Your task to perform on an android device: Clear the cart on bestbuy.com. Add "duracell triple a" to the cart on bestbuy.com, then select checkout. Image 0: 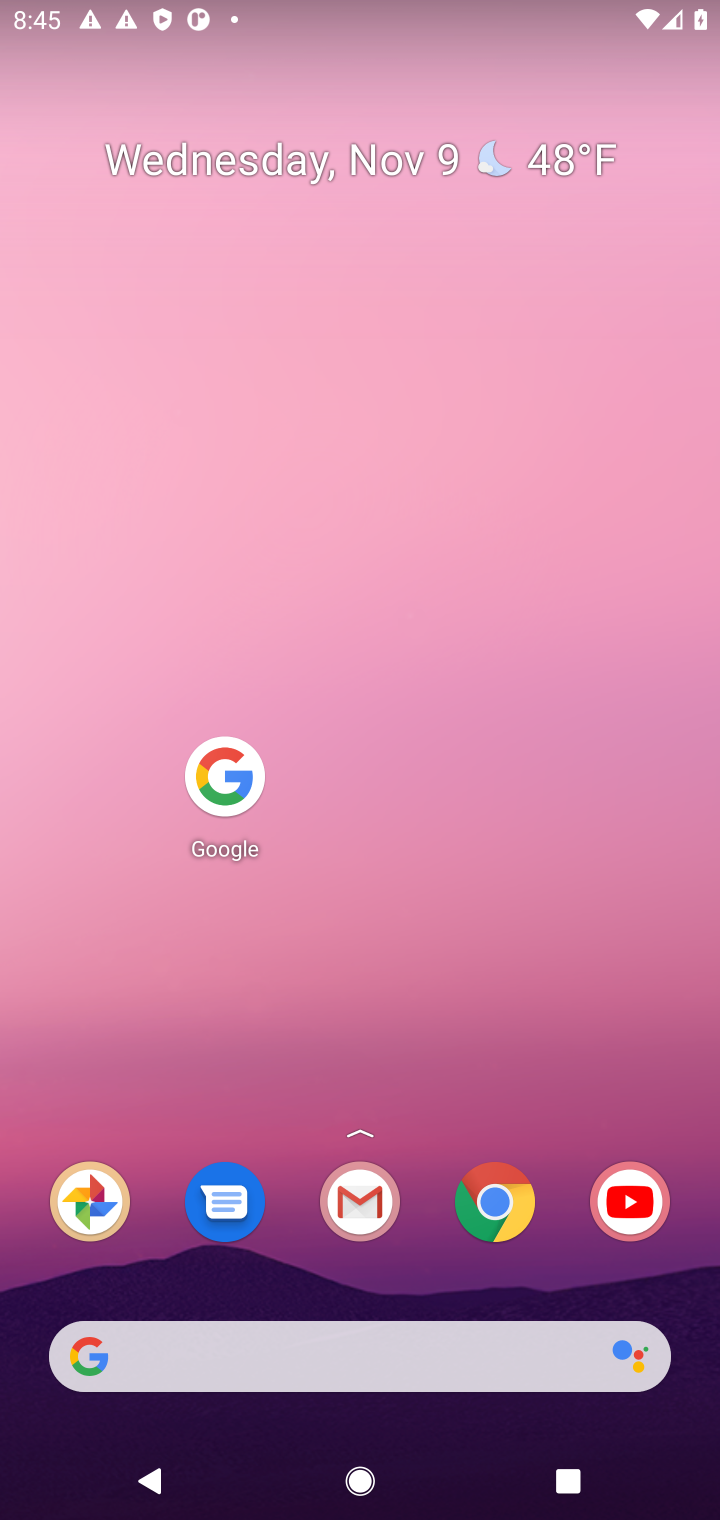
Step 0: click (226, 779)
Your task to perform on an android device: Clear the cart on bestbuy.com. Add "duracell triple a" to the cart on bestbuy.com, then select checkout. Image 1: 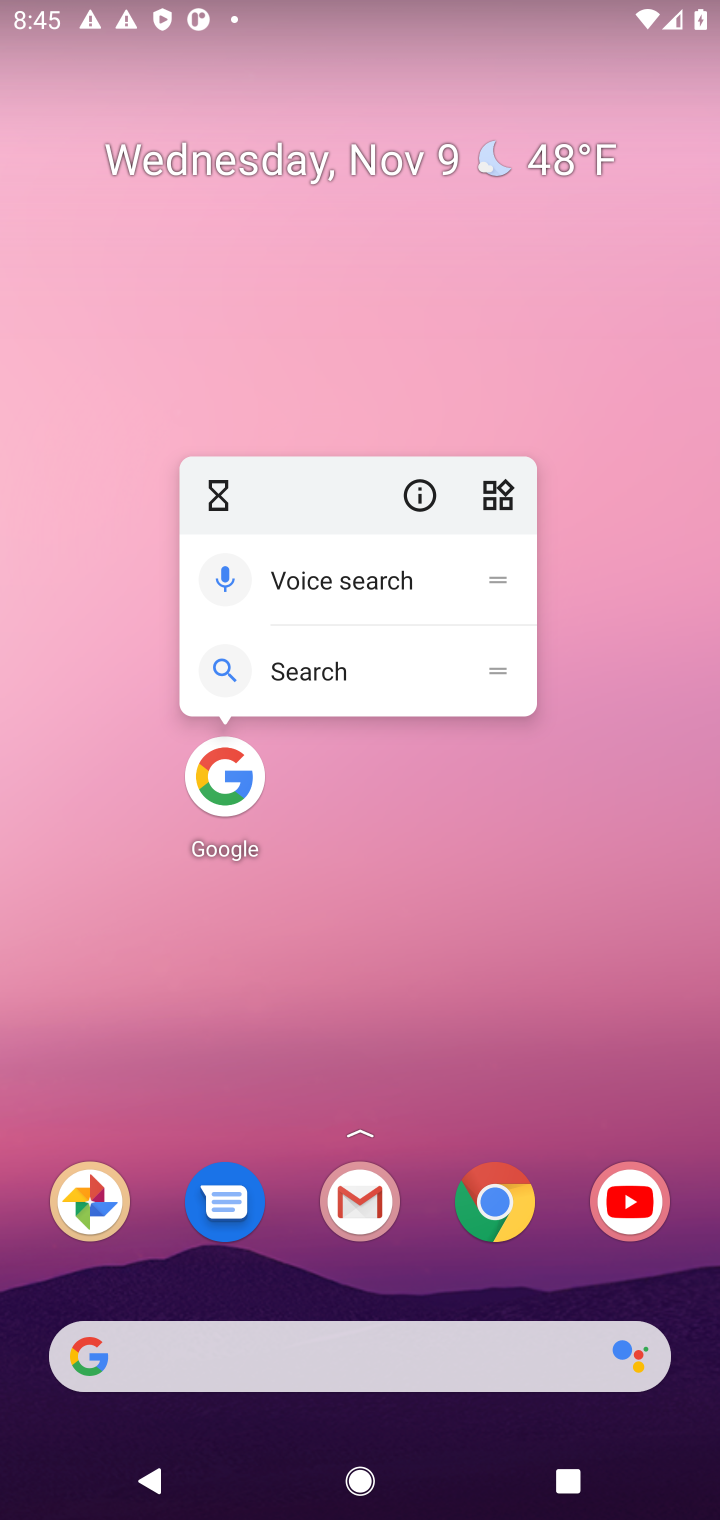
Step 1: click (226, 781)
Your task to perform on an android device: Clear the cart on bestbuy.com. Add "duracell triple a" to the cart on bestbuy.com, then select checkout. Image 2: 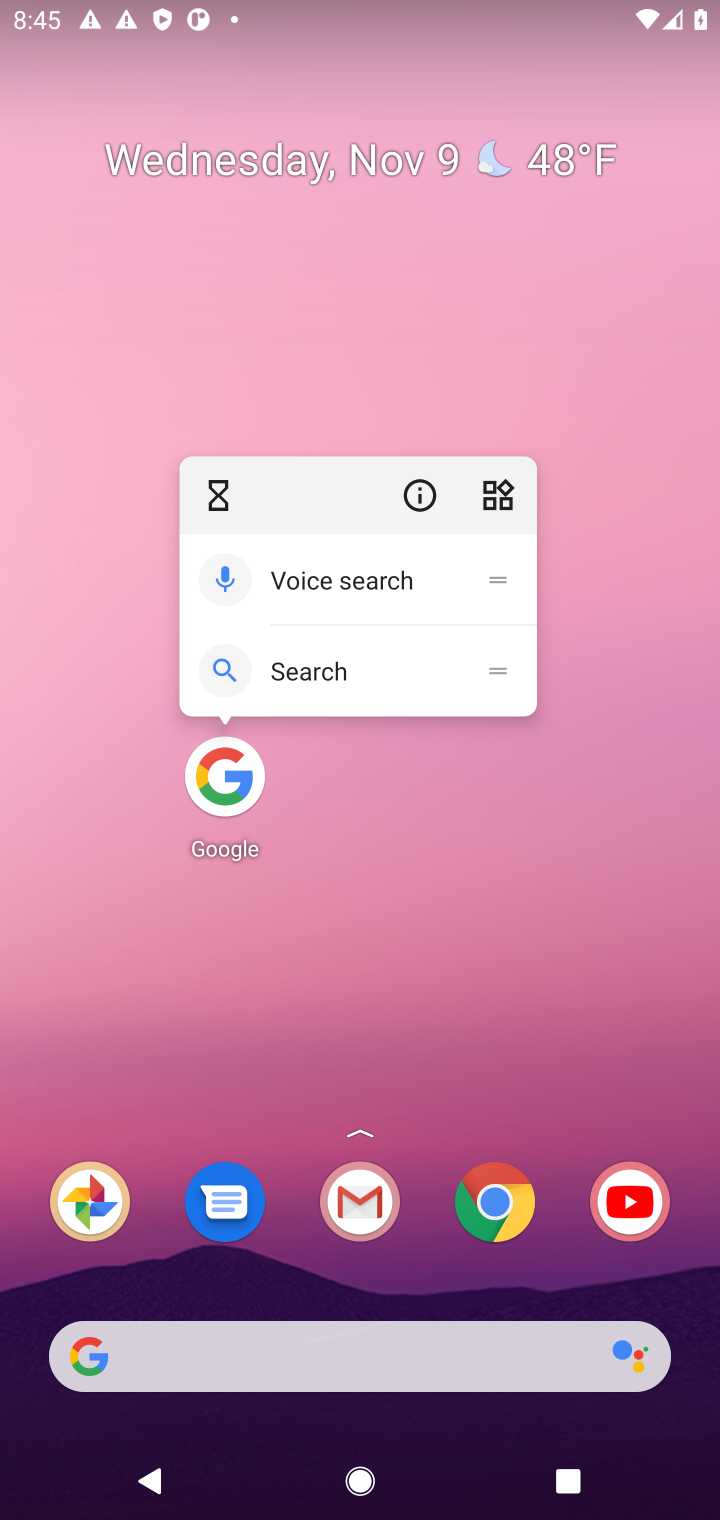
Step 2: click (226, 781)
Your task to perform on an android device: Clear the cart on bestbuy.com. Add "duracell triple a" to the cart on bestbuy.com, then select checkout. Image 3: 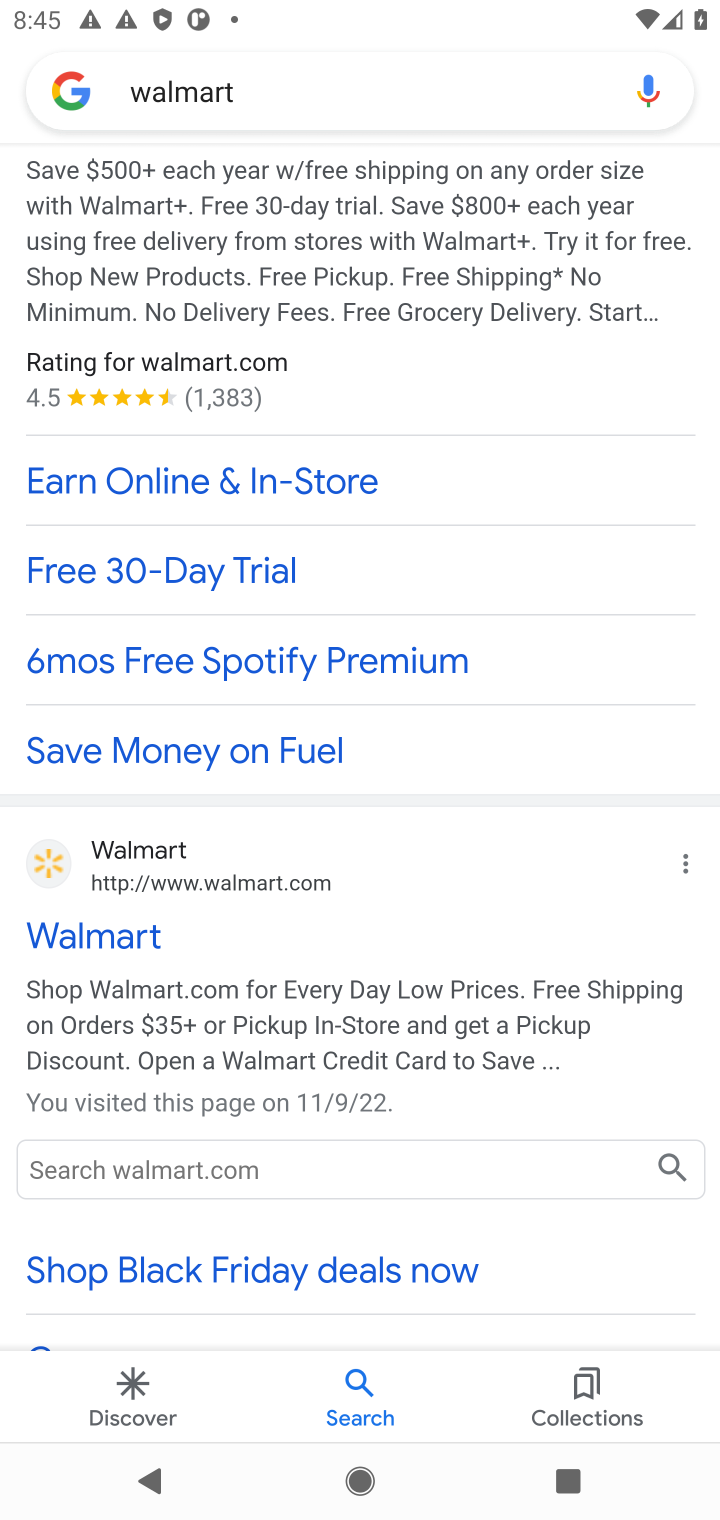
Step 3: click (296, 89)
Your task to perform on an android device: Clear the cart on bestbuy.com. Add "duracell triple a" to the cart on bestbuy.com, then select checkout. Image 4: 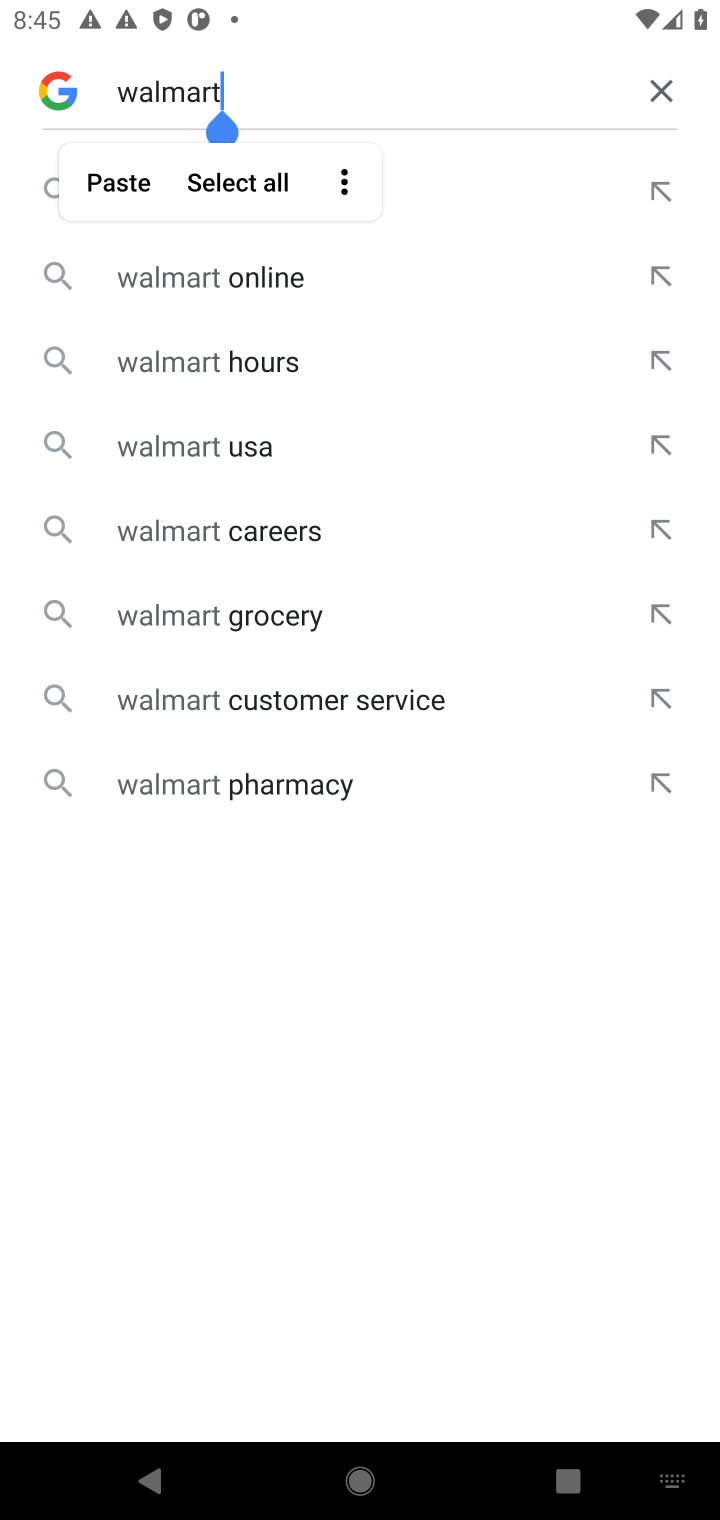
Step 4: click (659, 82)
Your task to perform on an android device: Clear the cart on bestbuy.com. Add "duracell triple a" to the cart on bestbuy.com, then select checkout. Image 5: 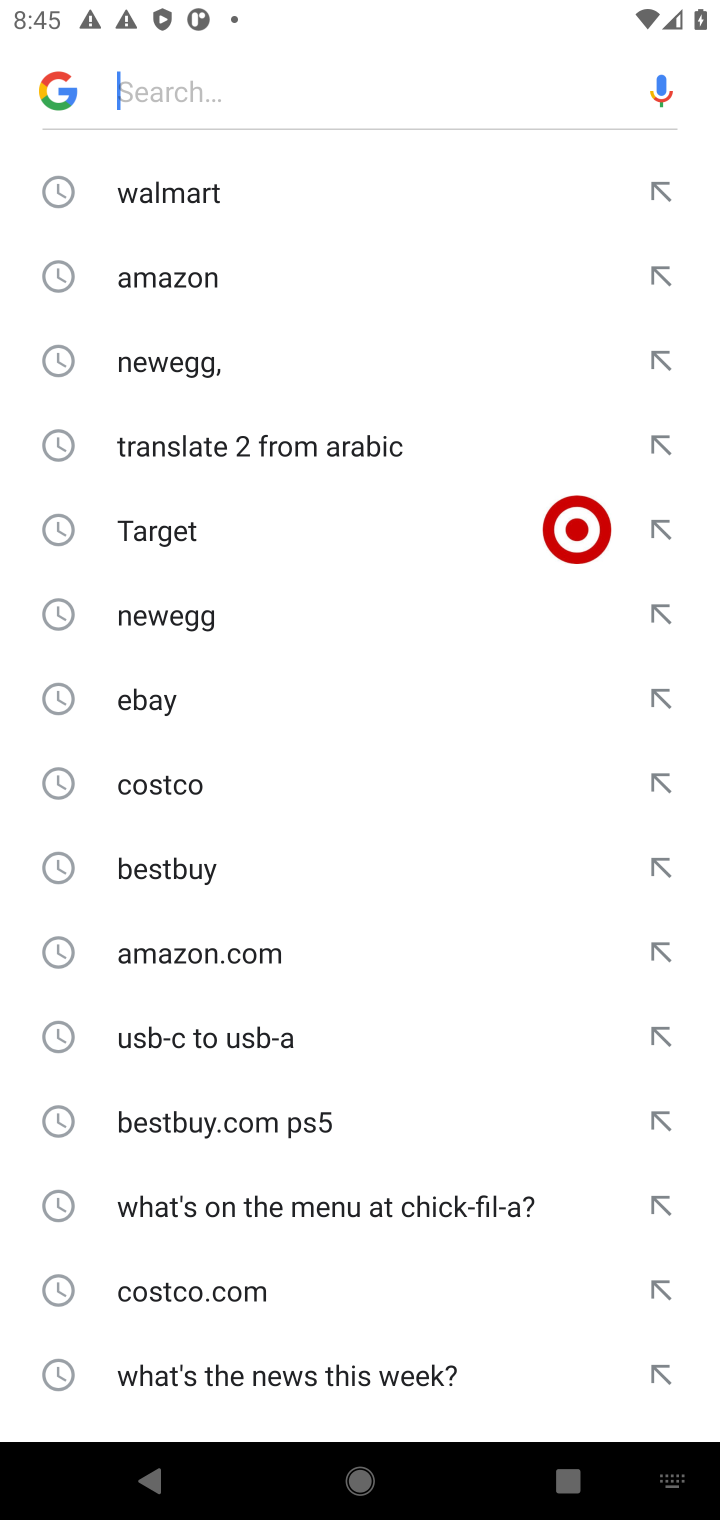
Step 5: click (158, 861)
Your task to perform on an android device: Clear the cart on bestbuy.com. Add "duracell triple a" to the cart on bestbuy.com, then select checkout. Image 6: 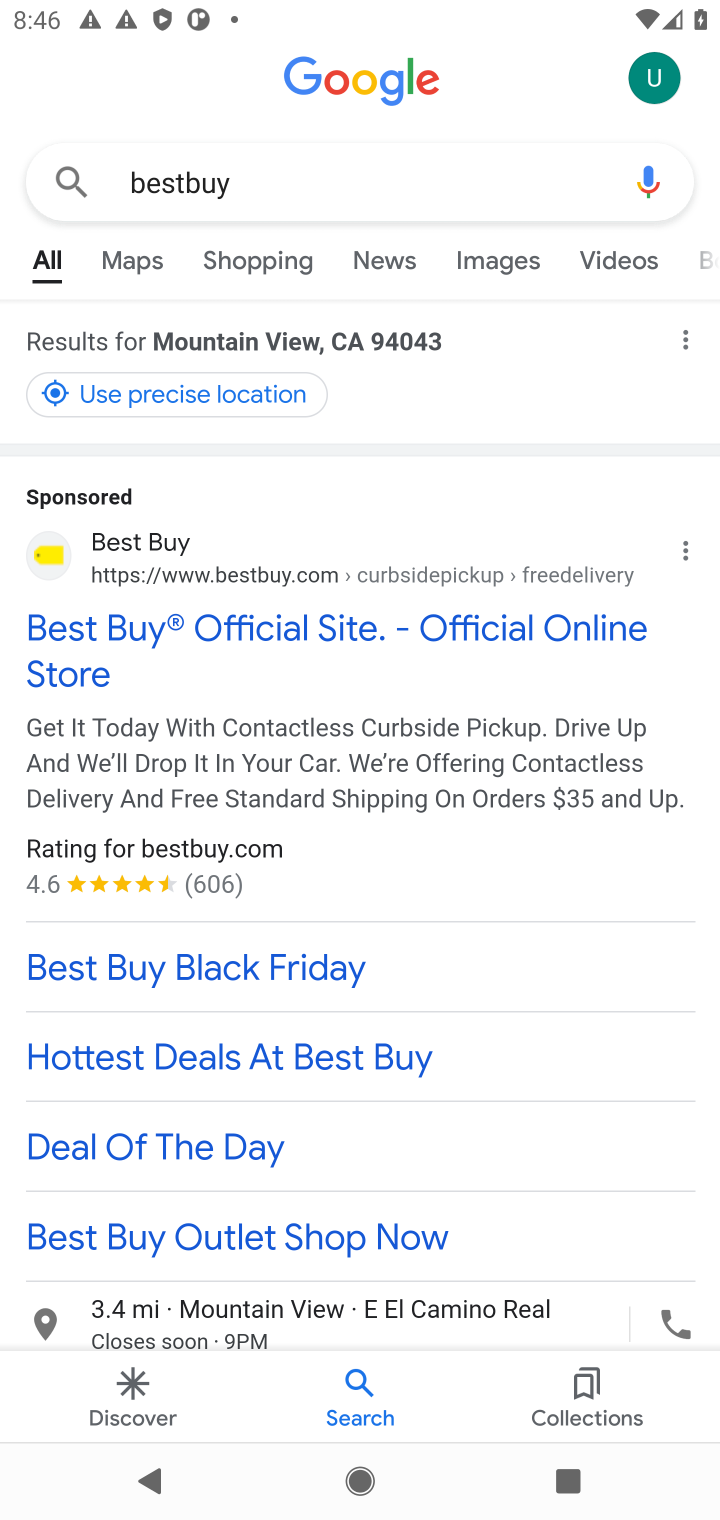
Step 6: click (257, 627)
Your task to perform on an android device: Clear the cart on bestbuy.com. Add "duracell triple a" to the cart on bestbuy.com, then select checkout. Image 7: 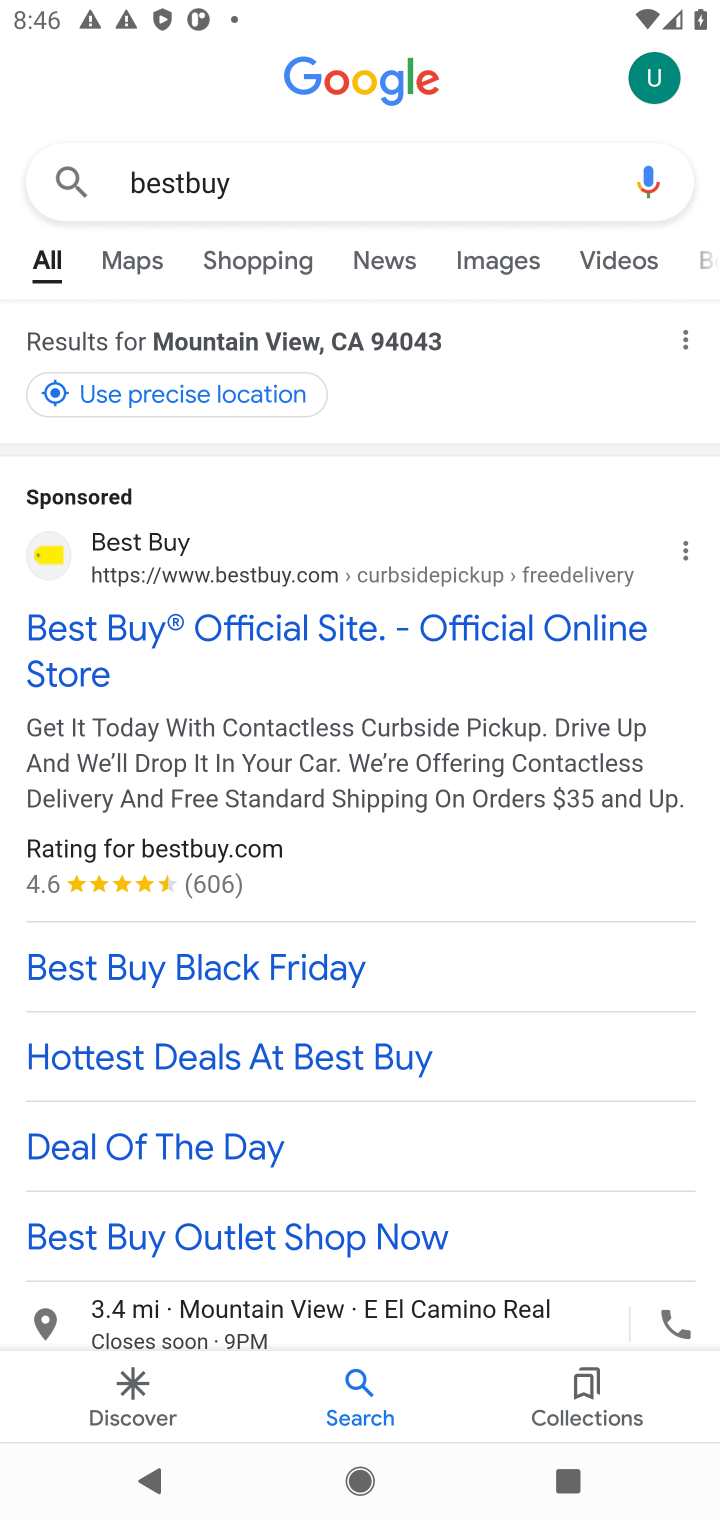
Step 7: click (270, 622)
Your task to perform on an android device: Clear the cart on bestbuy.com. Add "duracell triple a" to the cart on bestbuy.com, then select checkout. Image 8: 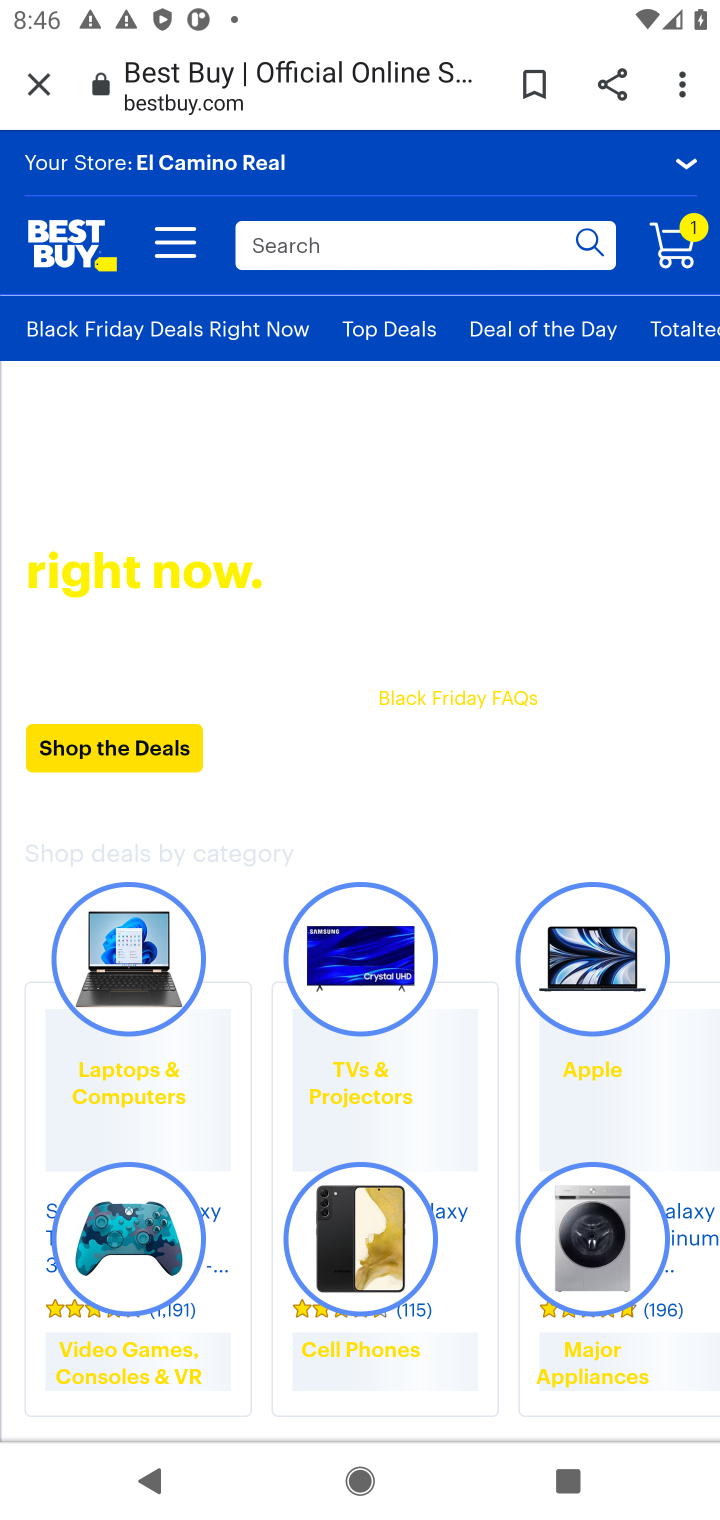
Step 8: click (386, 248)
Your task to perform on an android device: Clear the cart on bestbuy.com. Add "duracell triple a" to the cart on bestbuy.com, then select checkout. Image 9: 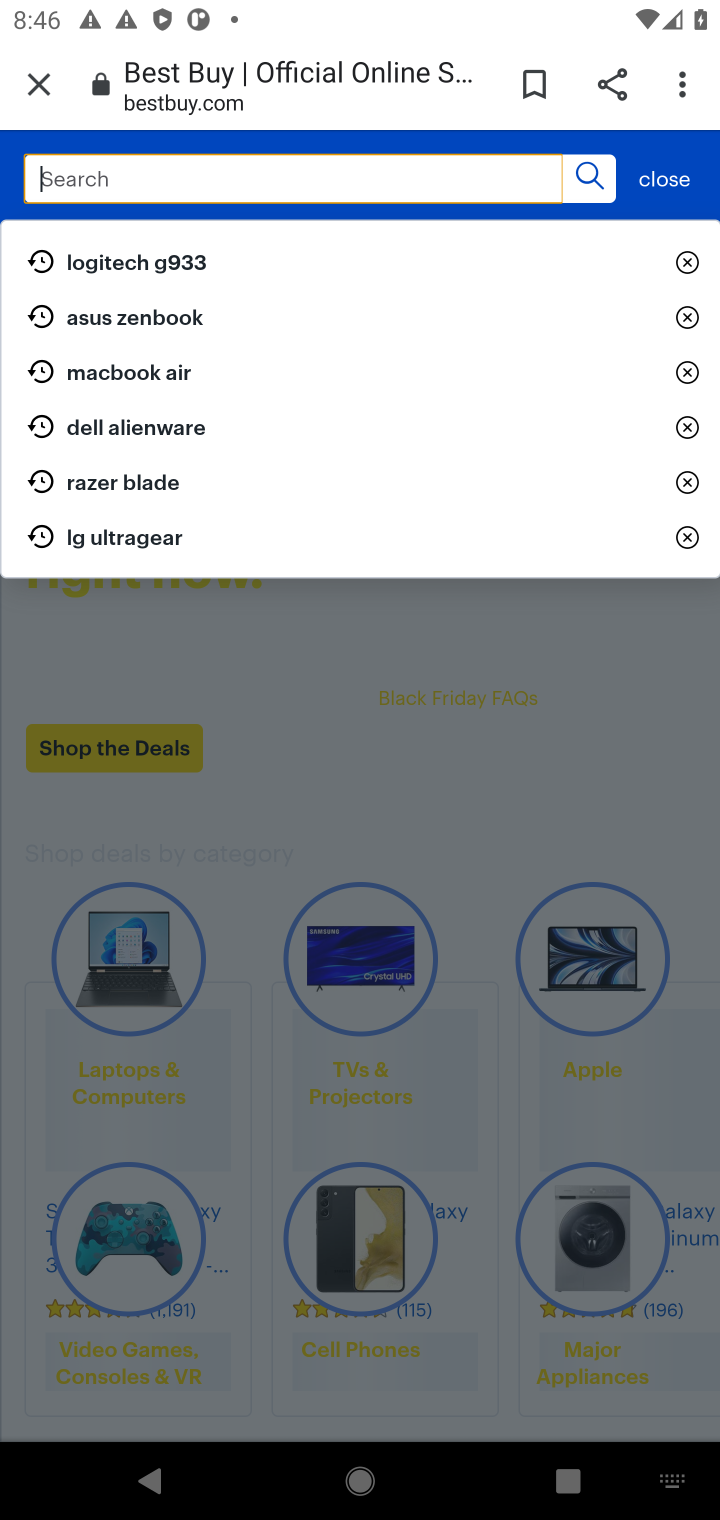
Step 9: type "duracell triple a"
Your task to perform on an android device: Clear the cart on bestbuy.com. Add "duracell triple a" to the cart on bestbuy.com, then select checkout. Image 10: 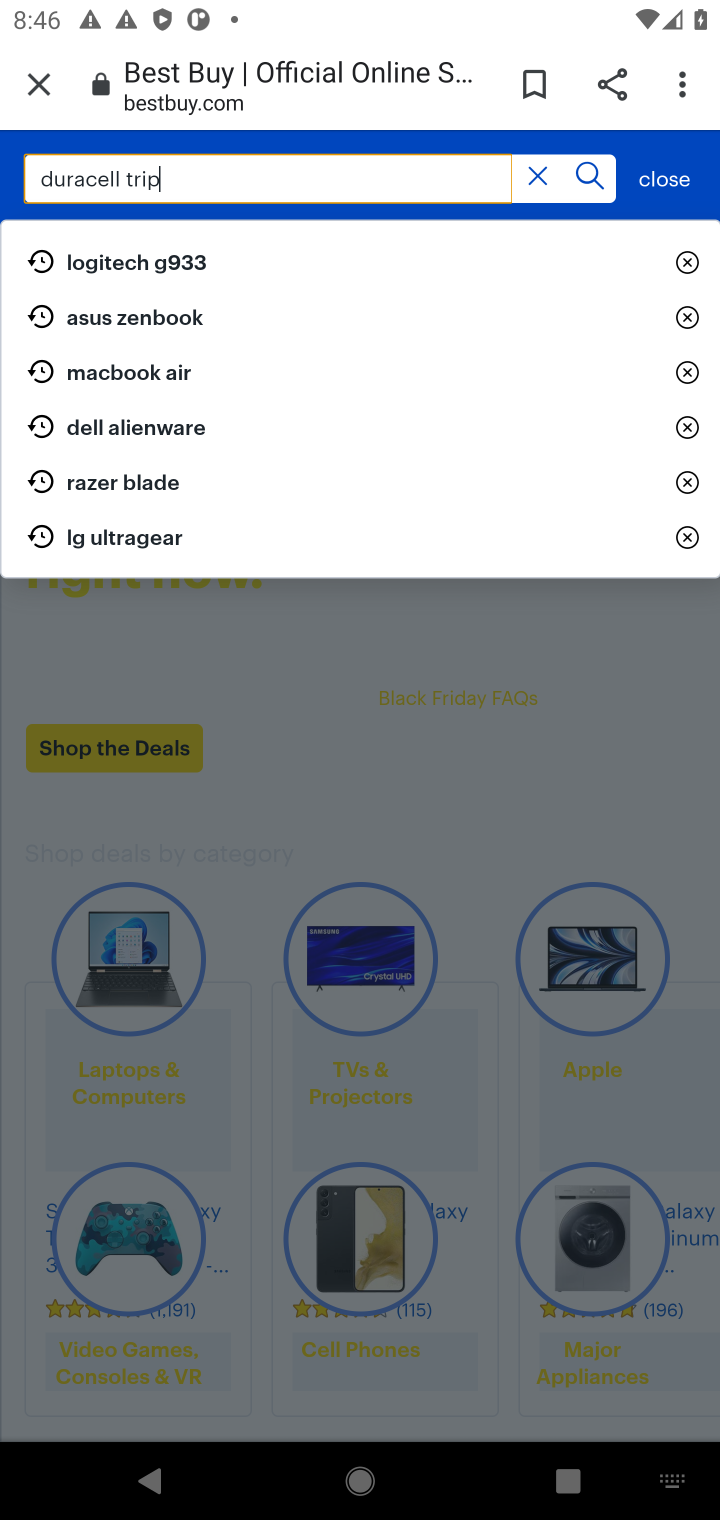
Step 10: press enter
Your task to perform on an android device: Clear the cart on bestbuy.com. Add "duracell triple a" to the cart on bestbuy.com, then select checkout. Image 11: 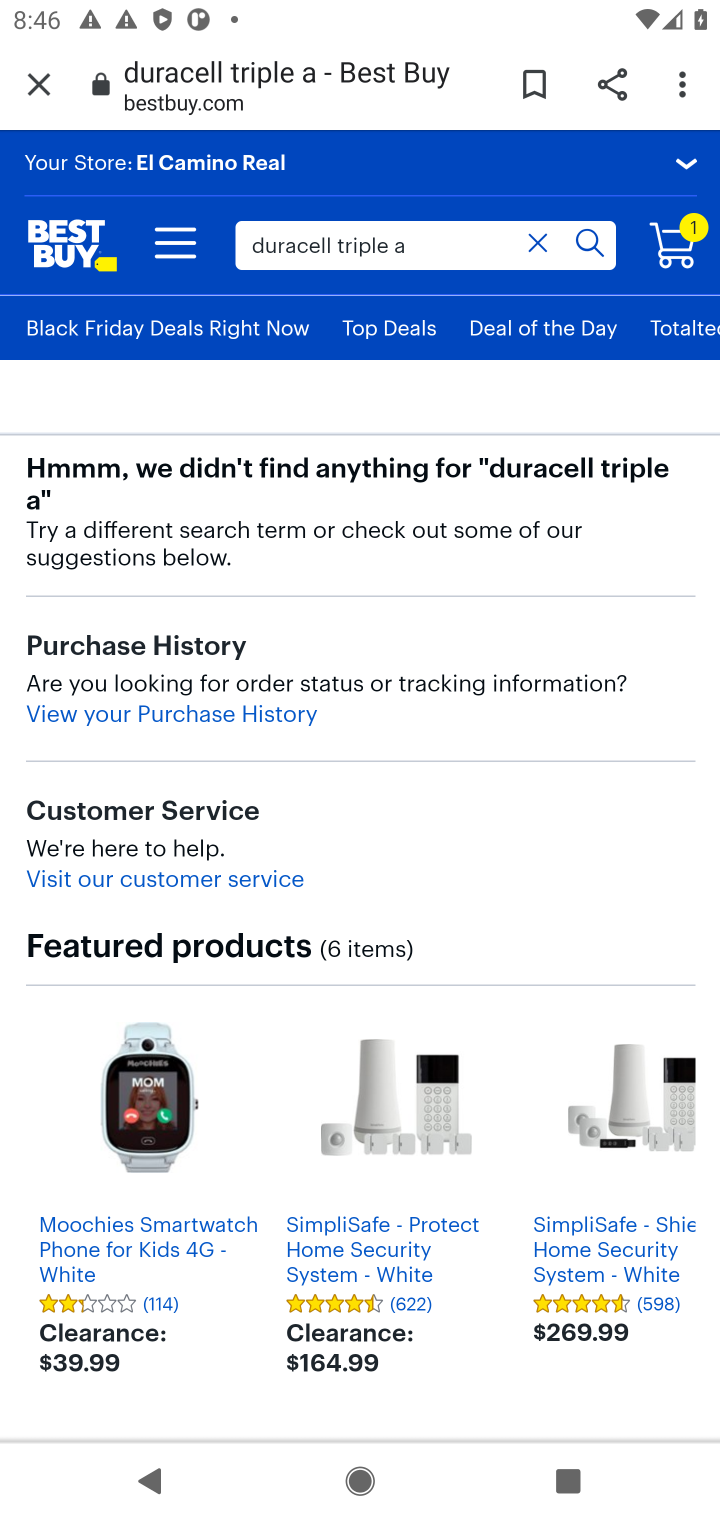
Step 11: task complete